Your task to perform on an android device: see creations saved in the google photos Image 0: 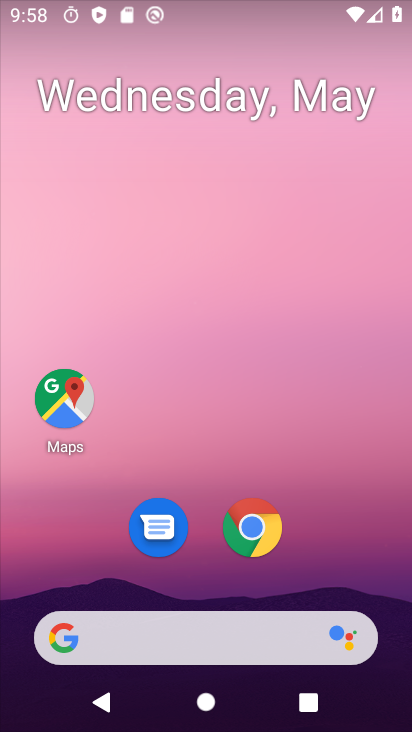
Step 0: drag from (337, 571) to (350, 275)
Your task to perform on an android device: see creations saved in the google photos Image 1: 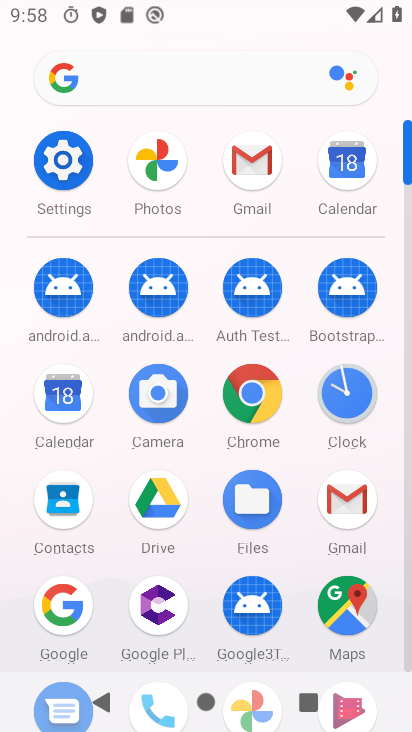
Step 1: click (409, 647)
Your task to perform on an android device: see creations saved in the google photos Image 2: 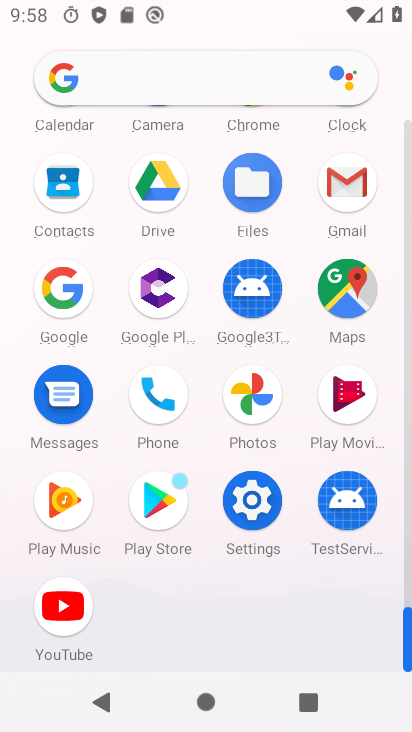
Step 2: click (251, 400)
Your task to perform on an android device: see creations saved in the google photos Image 3: 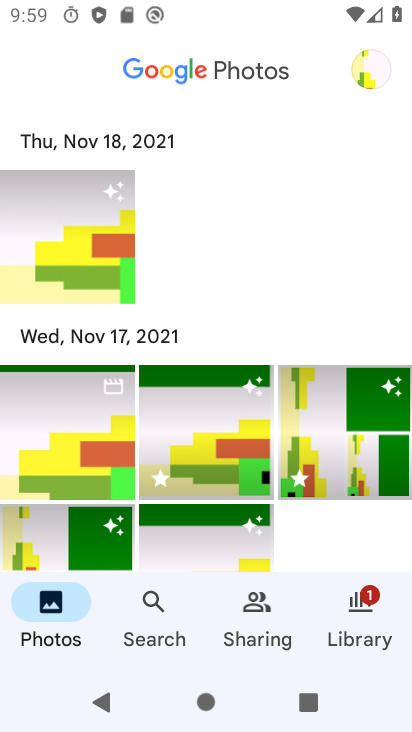
Step 3: click (144, 595)
Your task to perform on an android device: see creations saved in the google photos Image 4: 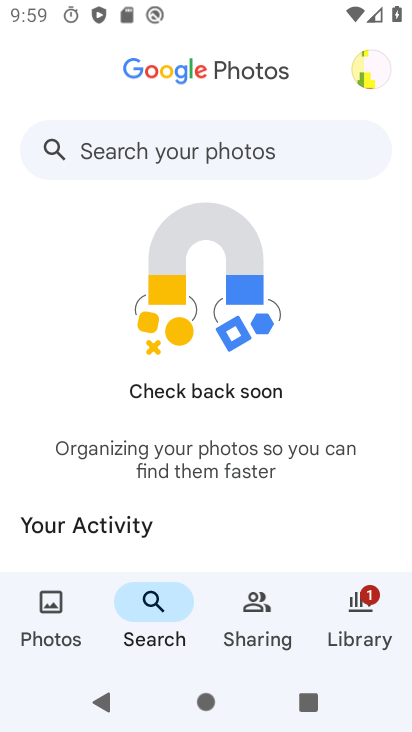
Step 4: click (188, 158)
Your task to perform on an android device: see creations saved in the google photos Image 5: 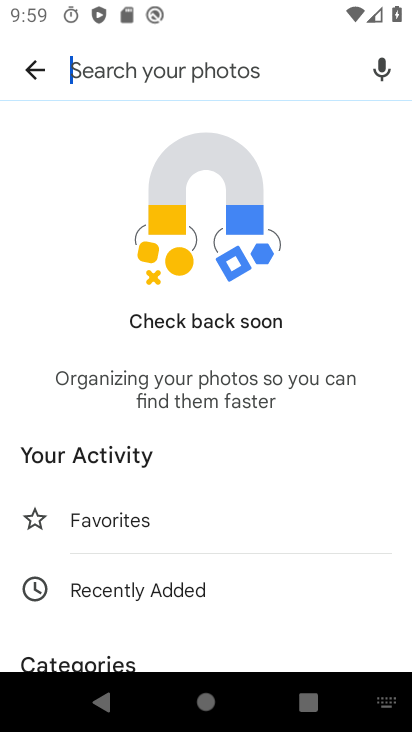
Step 5: drag from (291, 556) to (289, 64)
Your task to perform on an android device: see creations saved in the google photos Image 6: 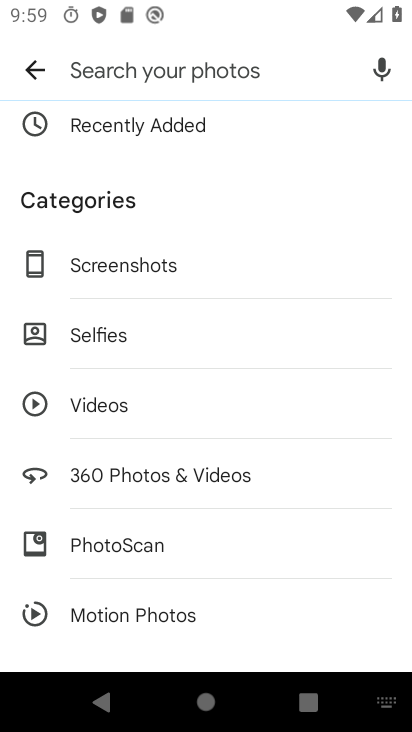
Step 6: drag from (279, 609) to (315, 451)
Your task to perform on an android device: see creations saved in the google photos Image 7: 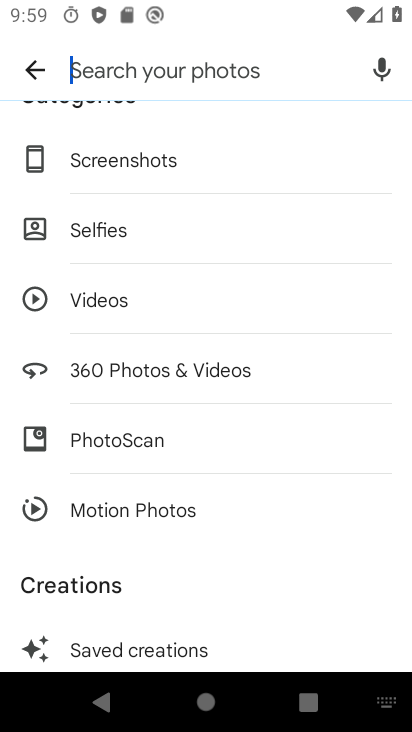
Step 7: click (38, 633)
Your task to perform on an android device: see creations saved in the google photos Image 8: 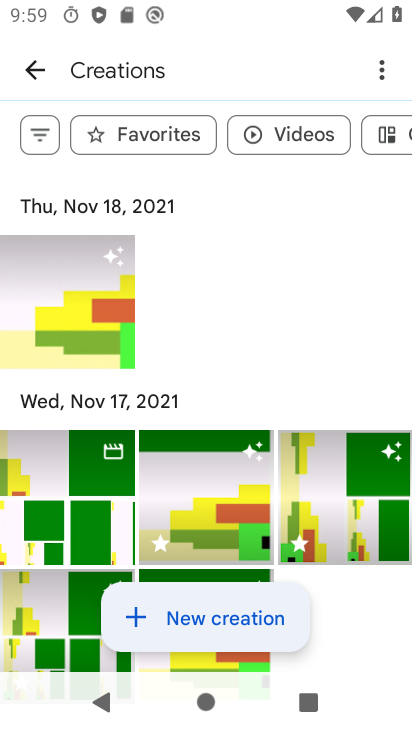
Step 8: task complete